Your task to perform on an android device: turn off wifi Image 0: 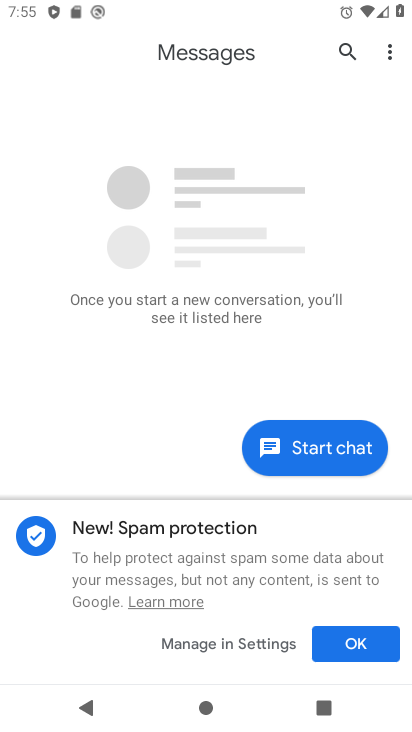
Step 0: press home button
Your task to perform on an android device: turn off wifi Image 1: 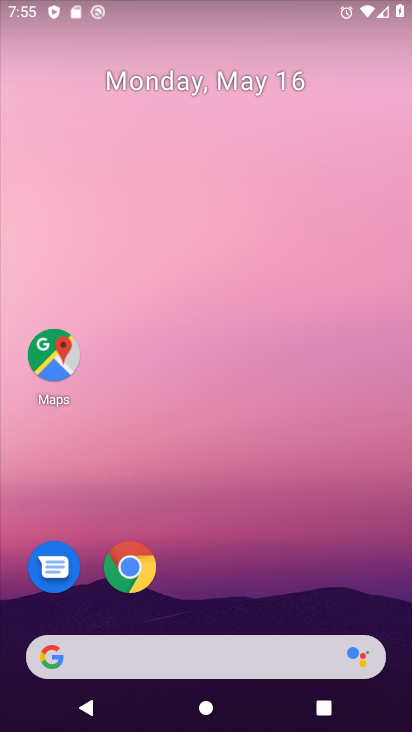
Step 1: drag from (197, 636) to (221, 145)
Your task to perform on an android device: turn off wifi Image 2: 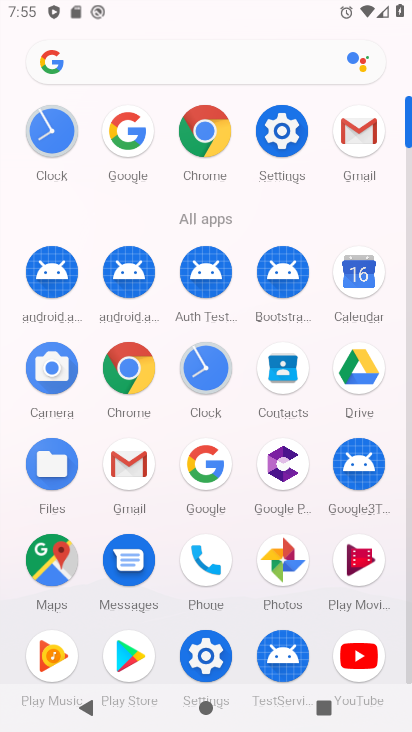
Step 2: click (278, 141)
Your task to perform on an android device: turn off wifi Image 3: 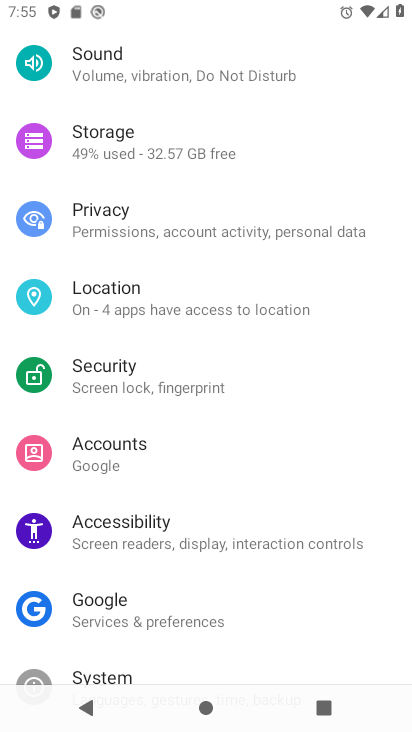
Step 3: drag from (229, 93) to (263, 470)
Your task to perform on an android device: turn off wifi Image 4: 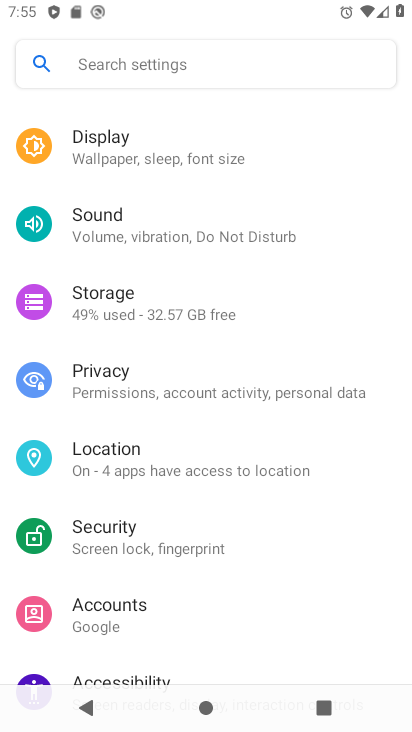
Step 4: drag from (172, 122) to (234, 547)
Your task to perform on an android device: turn off wifi Image 5: 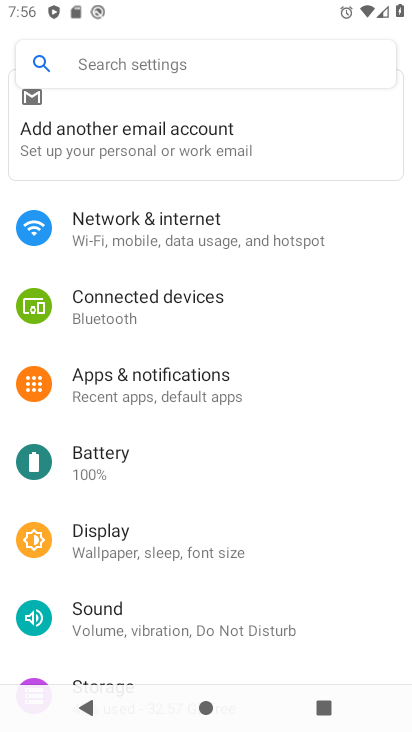
Step 5: drag from (162, 325) to (167, 585)
Your task to perform on an android device: turn off wifi Image 6: 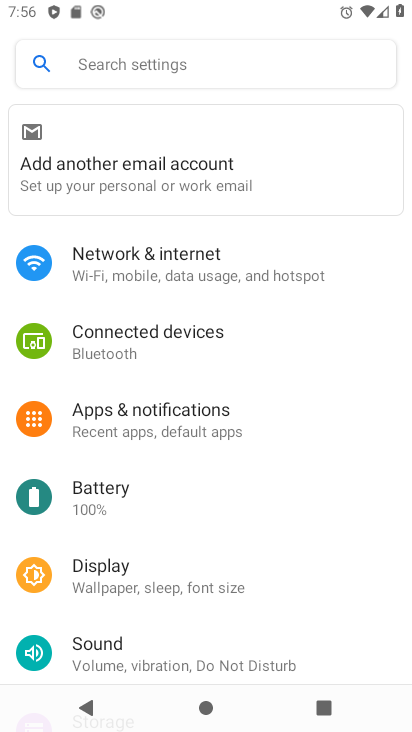
Step 6: click (124, 265)
Your task to perform on an android device: turn off wifi Image 7: 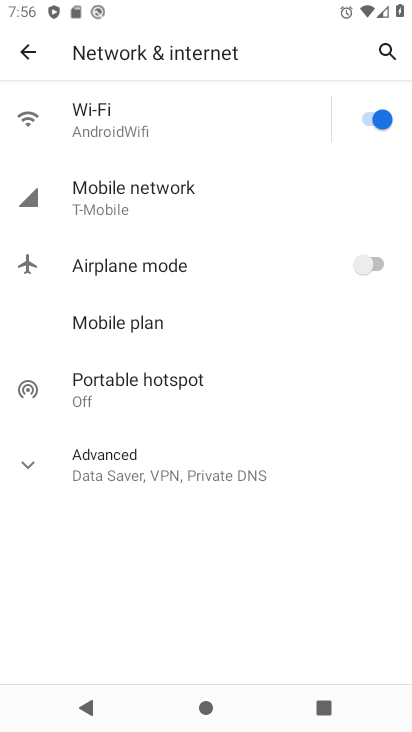
Step 7: click (369, 116)
Your task to perform on an android device: turn off wifi Image 8: 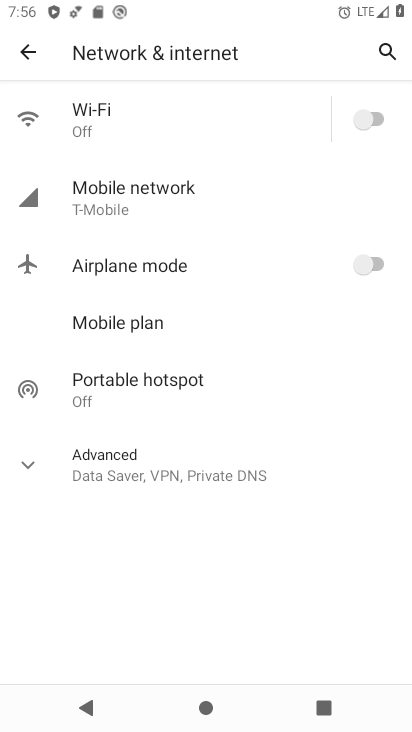
Step 8: task complete